Your task to perform on an android device: Go to calendar. Show me events next week Image 0: 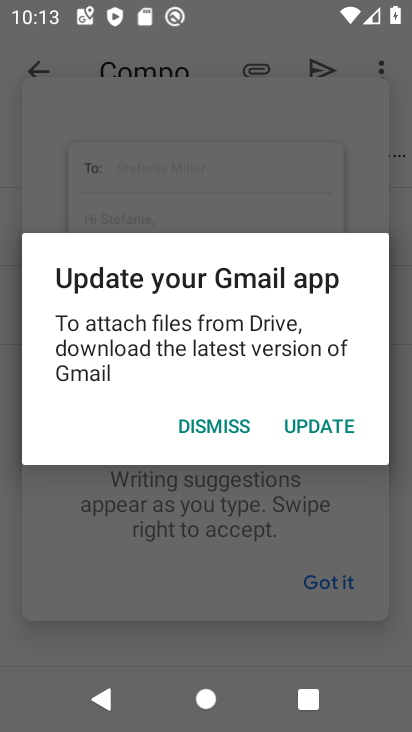
Step 0: press home button
Your task to perform on an android device: Go to calendar. Show me events next week Image 1: 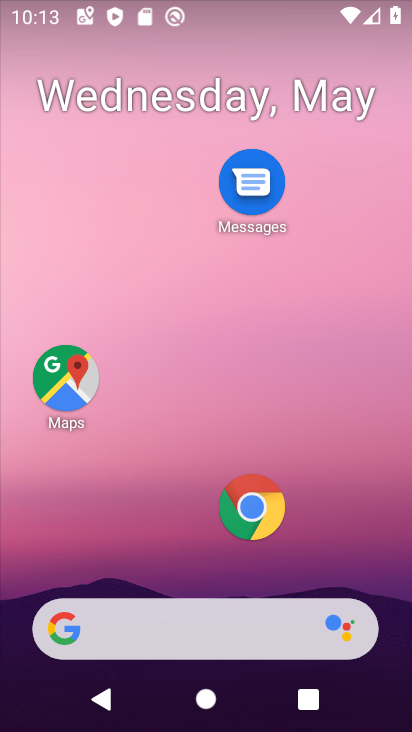
Step 1: drag from (191, 575) to (210, 55)
Your task to perform on an android device: Go to calendar. Show me events next week Image 2: 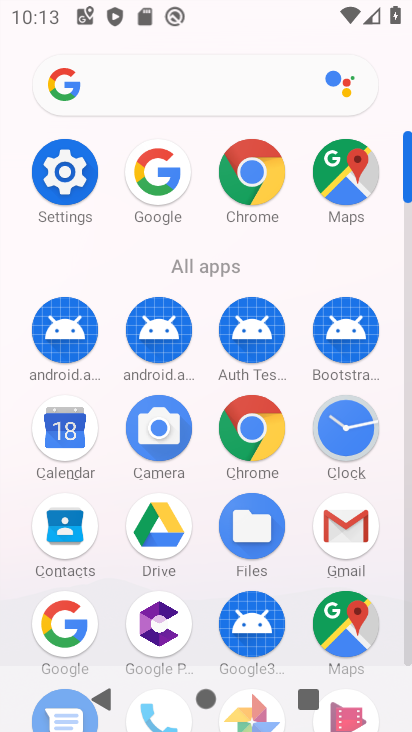
Step 2: click (64, 424)
Your task to perform on an android device: Go to calendar. Show me events next week Image 3: 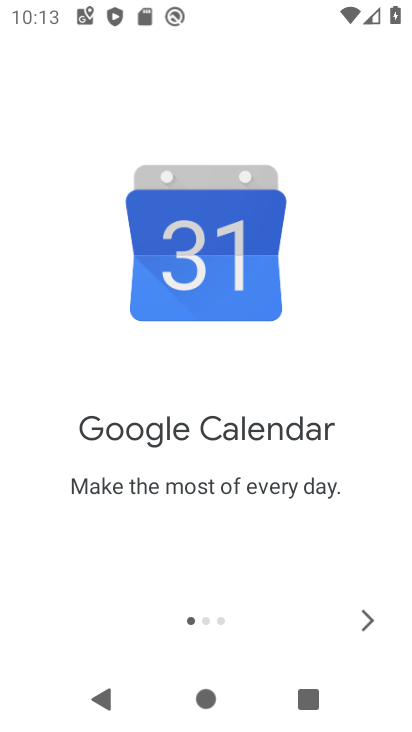
Step 3: click (353, 612)
Your task to perform on an android device: Go to calendar. Show me events next week Image 4: 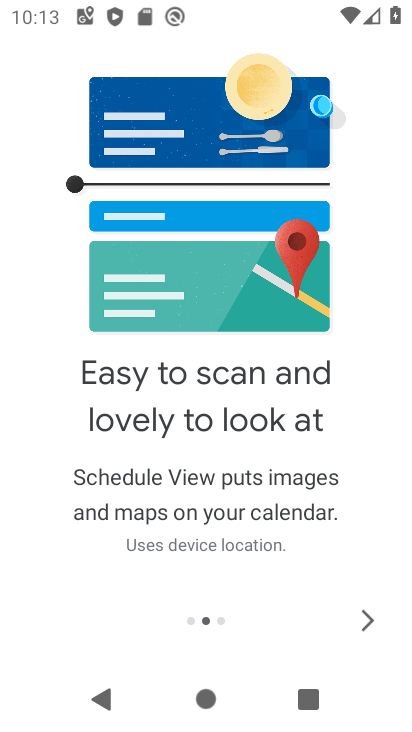
Step 4: click (353, 612)
Your task to perform on an android device: Go to calendar. Show me events next week Image 5: 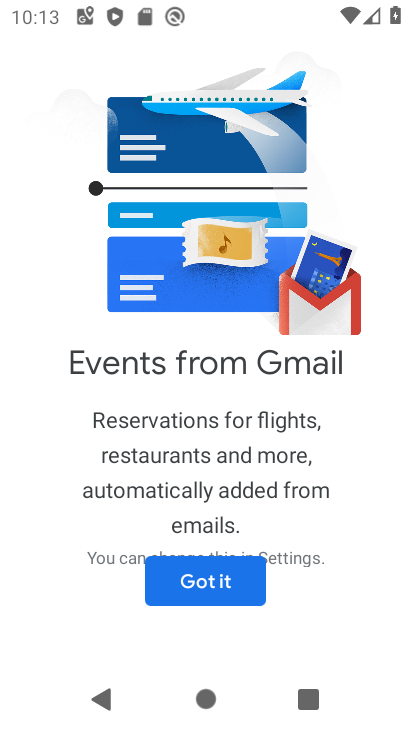
Step 5: click (204, 578)
Your task to perform on an android device: Go to calendar. Show me events next week Image 6: 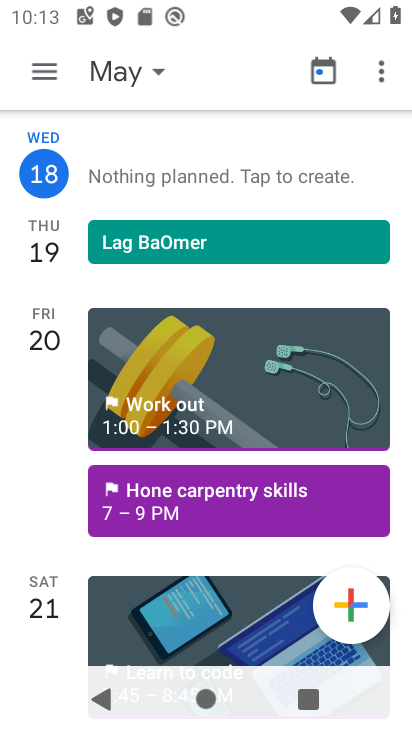
Step 6: task complete